Your task to perform on an android device: Search for duracell triple a on costco, select the first entry, and add it to the cart. Image 0: 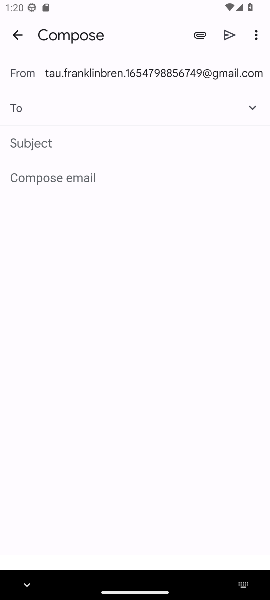
Step 0: press home button
Your task to perform on an android device: Search for duracell triple a on costco, select the first entry, and add it to the cart. Image 1: 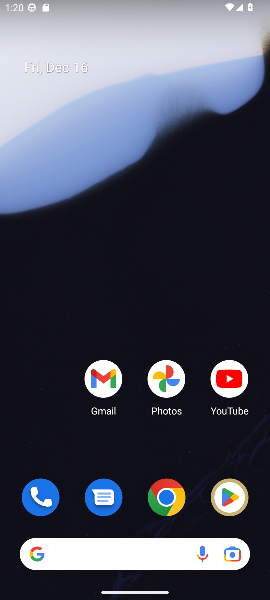
Step 1: click (170, 496)
Your task to perform on an android device: Search for duracell triple a on costco, select the first entry, and add it to the cart. Image 2: 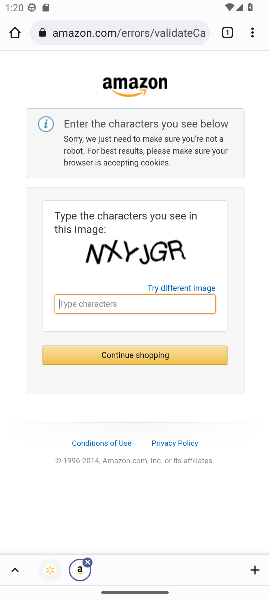
Step 2: click (119, 34)
Your task to perform on an android device: Search for duracell triple a on costco, select the first entry, and add it to the cart. Image 3: 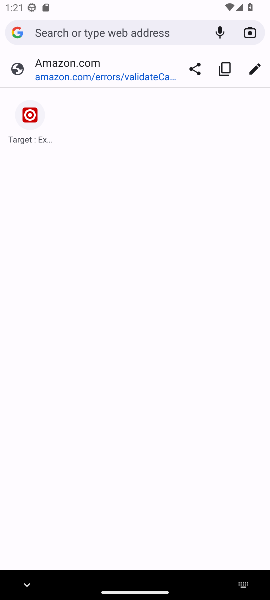
Step 3: type "COSTCO"
Your task to perform on an android device: Search for duracell triple a on costco, select the first entry, and add it to the cart. Image 4: 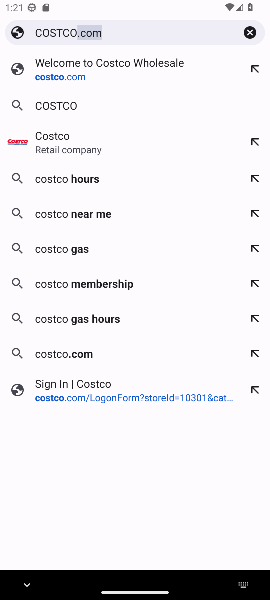
Step 4: click (67, 68)
Your task to perform on an android device: Search for duracell triple a on costco, select the first entry, and add it to the cart. Image 5: 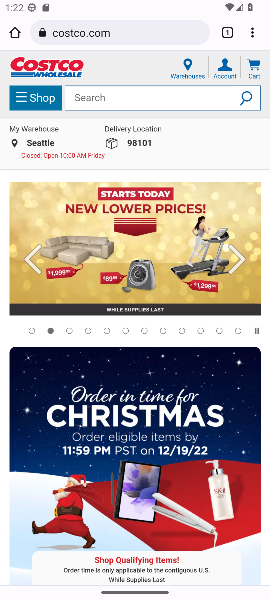
Step 5: click (118, 96)
Your task to perform on an android device: Search for duracell triple a on costco, select the first entry, and add it to the cart. Image 6: 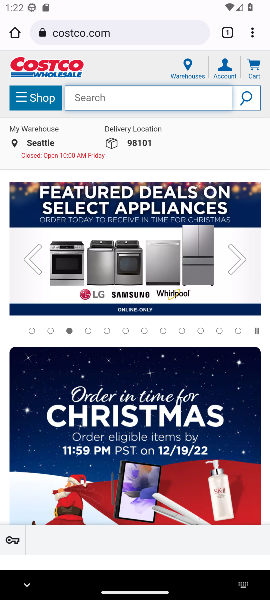
Step 6: click (163, 96)
Your task to perform on an android device: Search for duracell triple a on costco, select the first entry, and add it to the cart. Image 7: 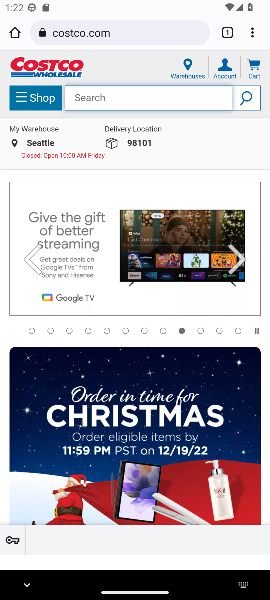
Step 7: click (126, 97)
Your task to perform on an android device: Search for duracell triple a on costco, select the first entry, and add it to the cart. Image 8: 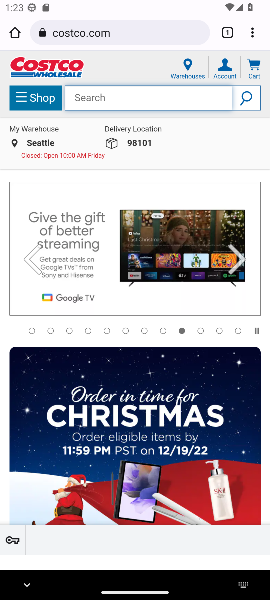
Step 8: type "macbook pro"
Your task to perform on an android device: Search for duracell triple a on costco, select the first entry, and add it to the cart. Image 9: 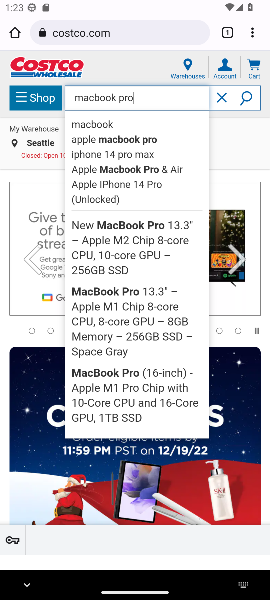
Step 9: click (117, 122)
Your task to perform on an android device: Search for duracell triple a on costco, select the first entry, and add it to the cart. Image 10: 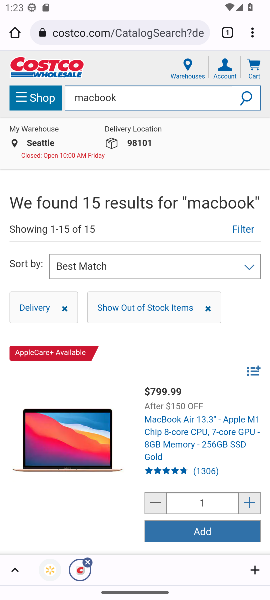
Step 10: click (214, 529)
Your task to perform on an android device: Search for duracell triple a on costco, select the first entry, and add it to the cart. Image 11: 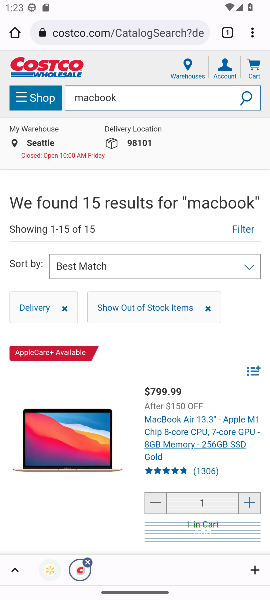
Step 11: task complete